Your task to perform on an android device: turn smart compose on in the gmail app Image 0: 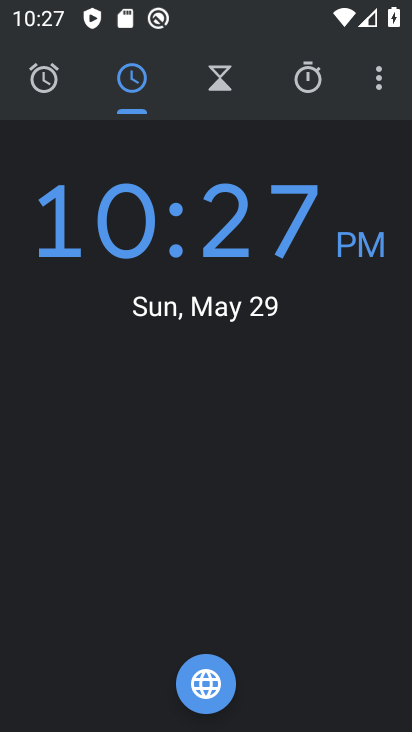
Step 0: press home button
Your task to perform on an android device: turn smart compose on in the gmail app Image 1: 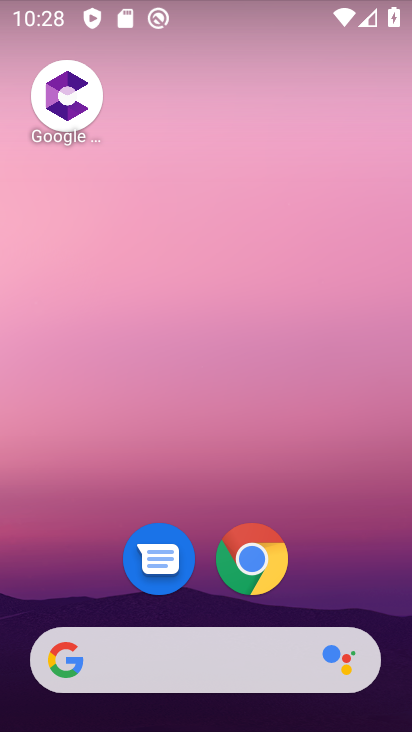
Step 1: drag from (219, 603) to (254, 17)
Your task to perform on an android device: turn smart compose on in the gmail app Image 2: 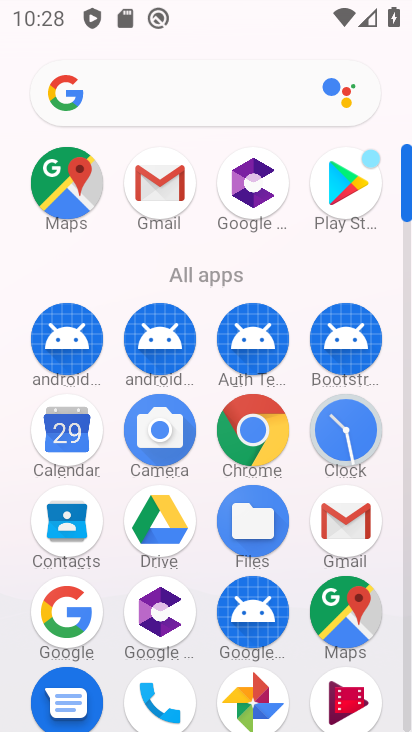
Step 2: click (167, 201)
Your task to perform on an android device: turn smart compose on in the gmail app Image 3: 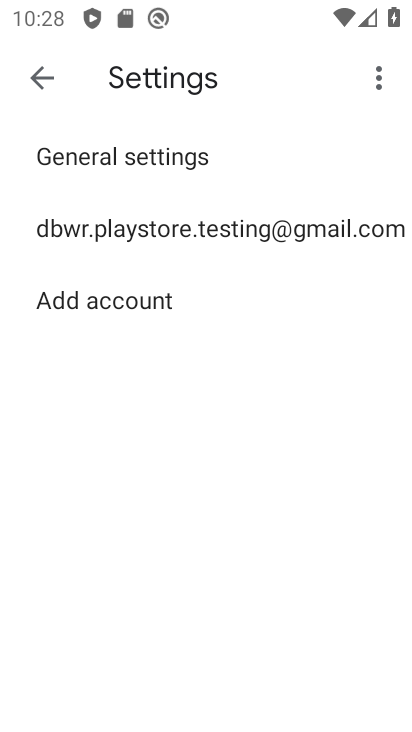
Step 3: click (156, 226)
Your task to perform on an android device: turn smart compose on in the gmail app Image 4: 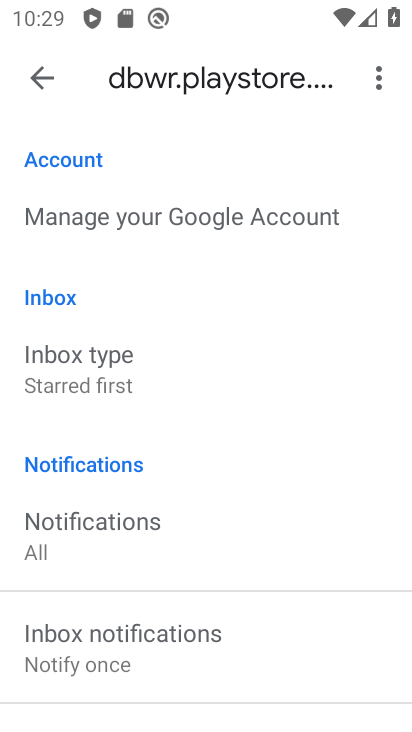
Step 4: task complete